Your task to perform on an android device: create a new album in the google photos Image 0: 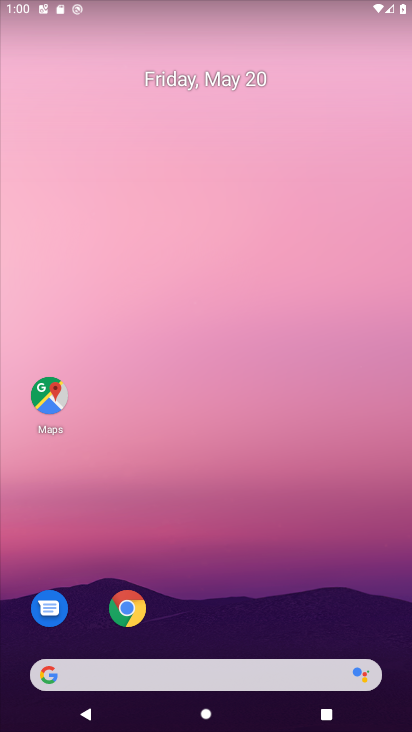
Step 0: drag from (250, 628) to (274, 181)
Your task to perform on an android device: create a new album in the google photos Image 1: 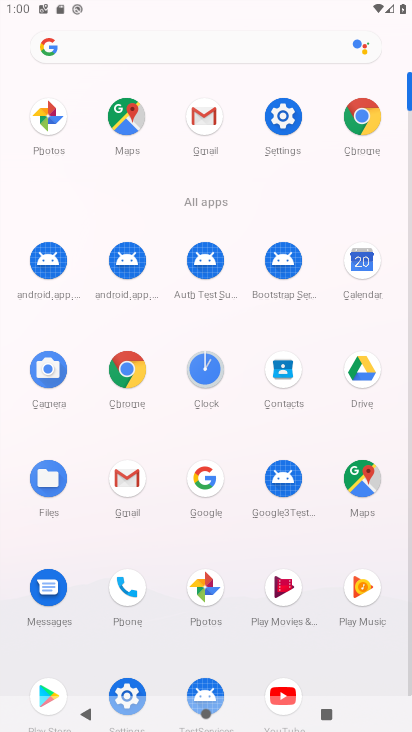
Step 1: click (44, 114)
Your task to perform on an android device: create a new album in the google photos Image 2: 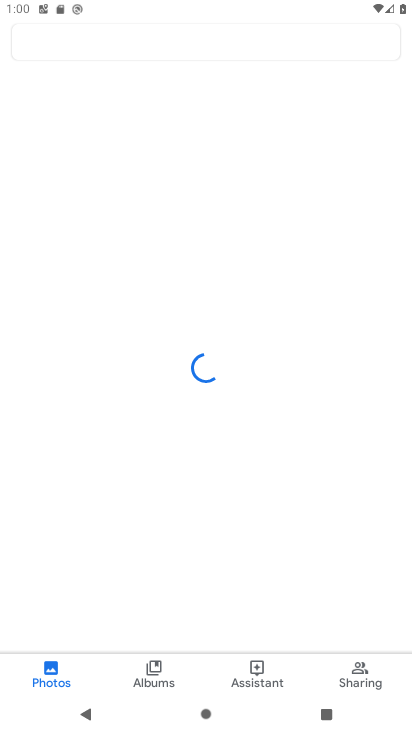
Step 2: click (155, 667)
Your task to perform on an android device: create a new album in the google photos Image 3: 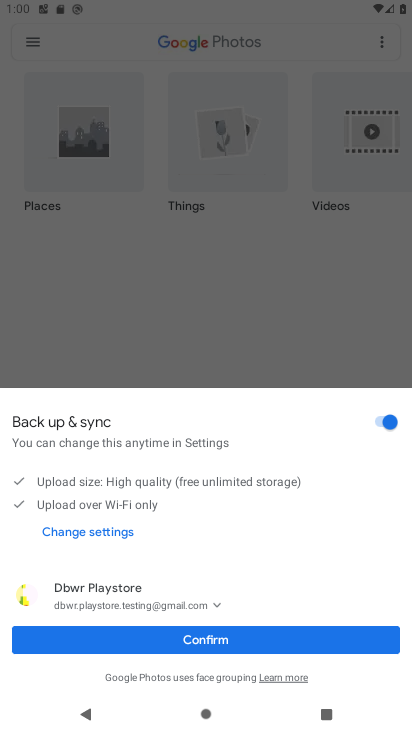
Step 3: click (201, 645)
Your task to perform on an android device: create a new album in the google photos Image 4: 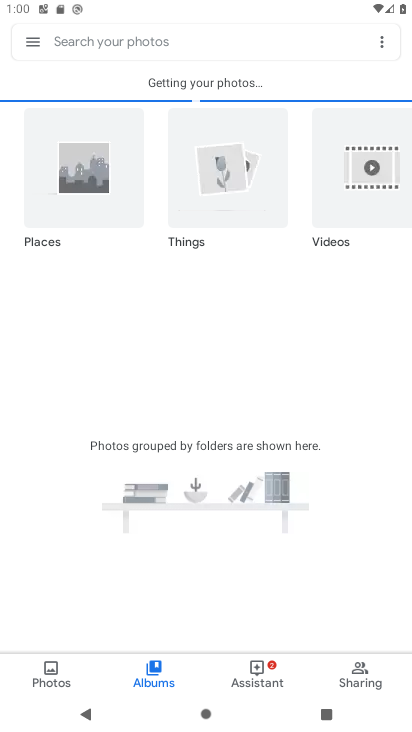
Step 4: drag from (243, 602) to (269, 248)
Your task to perform on an android device: create a new album in the google photos Image 5: 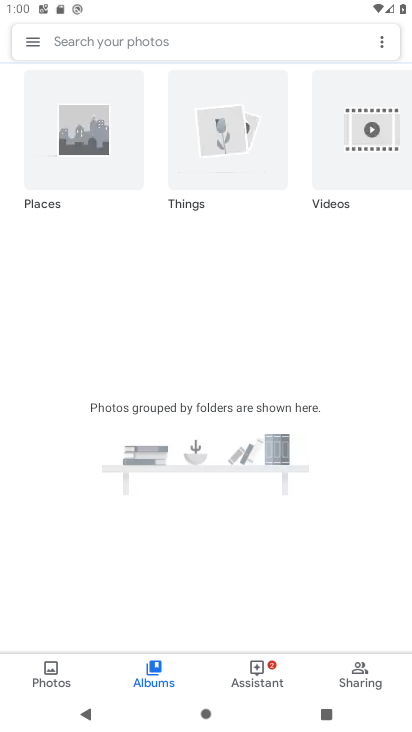
Step 5: click (48, 689)
Your task to perform on an android device: create a new album in the google photos Image 6: 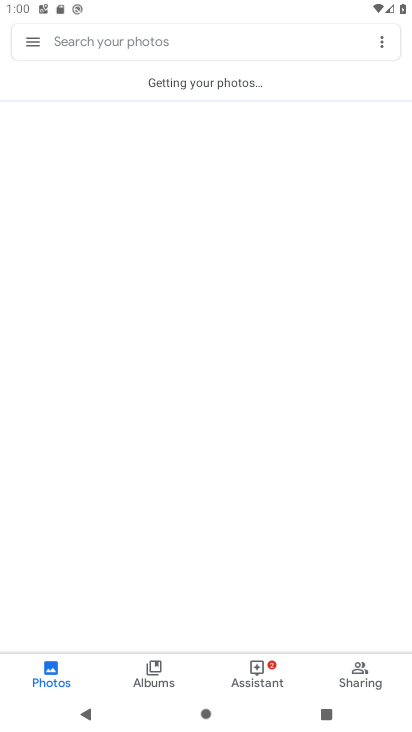
Step 6: click (160, 688)
Your task to perform on an android device: create a new album in the google photos Image 7: 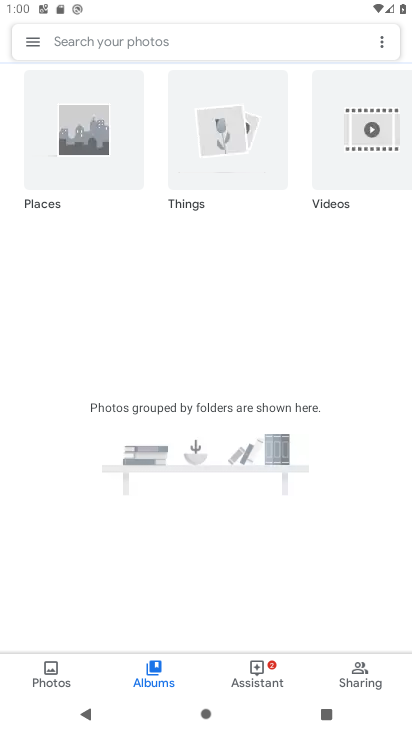
Step 7: drag from (190, 453) to (134, 438)
Your task to perform on an android device: create a new album in the google photos Image 8: 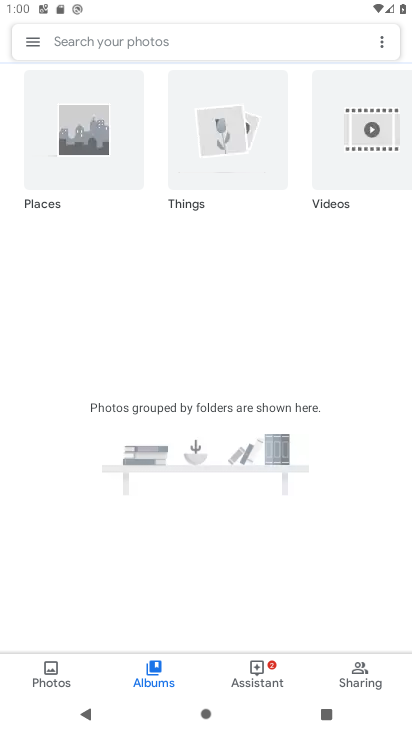
Step 8: click (379, 48)
Your task to perform on an android device: create a new album in the google photos Image 9: 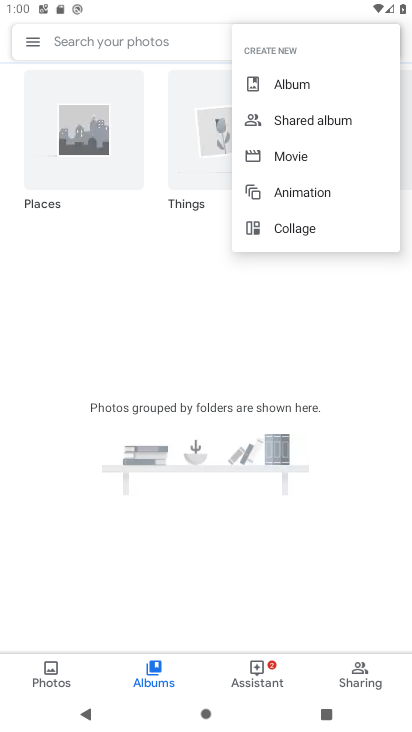
Step 9: click (320, 89)
Your task to perform on an android device: create a new album in the google photos Image 10: 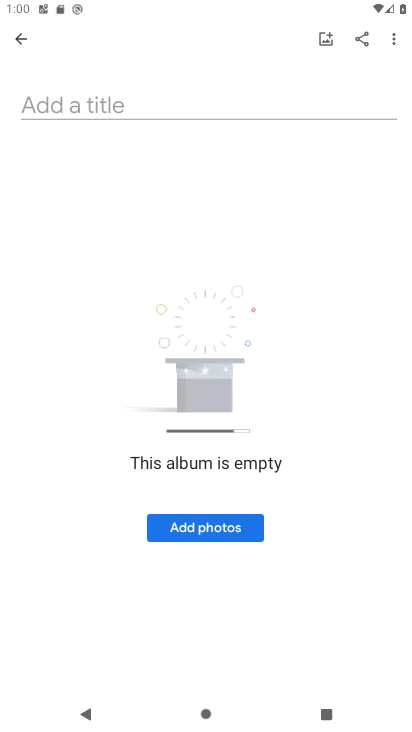
Step 10: click (235, 532)
Your task to perform on an android device: create a new album in the google photos Image 11: 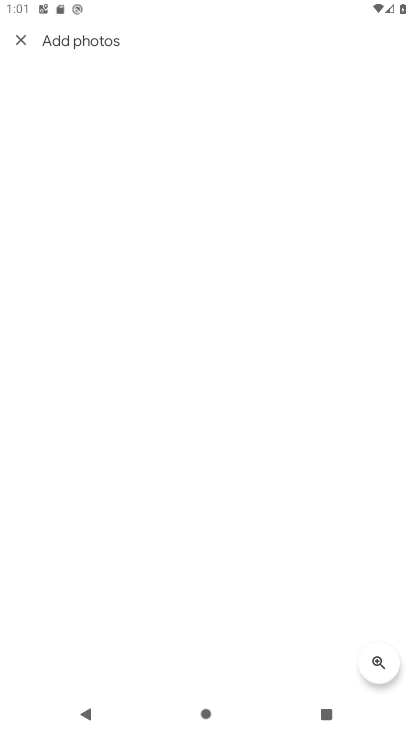
Step 11: click (16, 39)
Your task to perform on an android device: create a new album in the google photos Image 12: 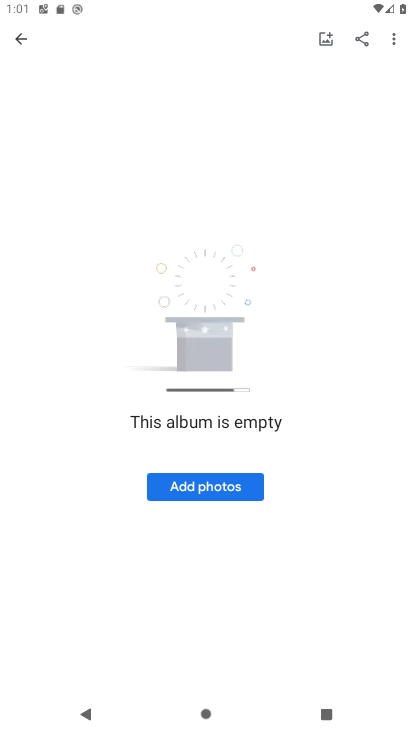
Step 12: click (241, 491)
Your task to perform on an android device: create a new album in the google photos Image 13: 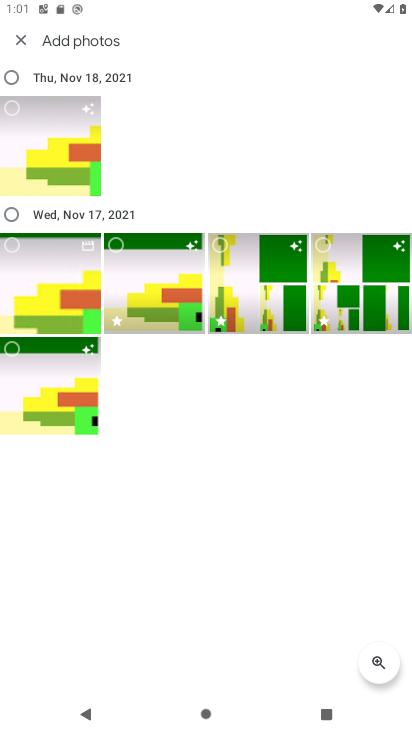
Step 13: click (25, 122)
Your task to perform on an android device: create a new album in the google photos Image 14: 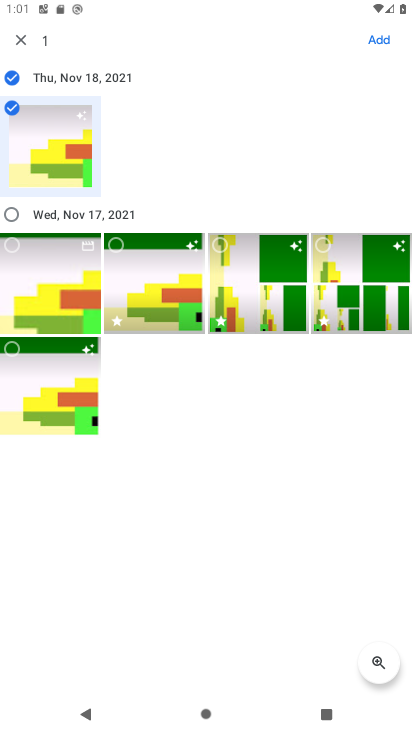
Step 14: click (381, 47)
Your task to perform on an android device: create a new album in the google photos Image 15: 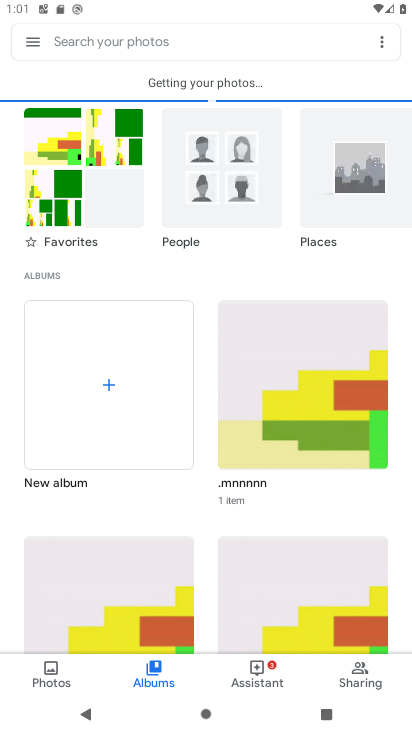
Step 15: task complete